Your task to perform on an android device: toggle javascript in the chrome app Image 0: 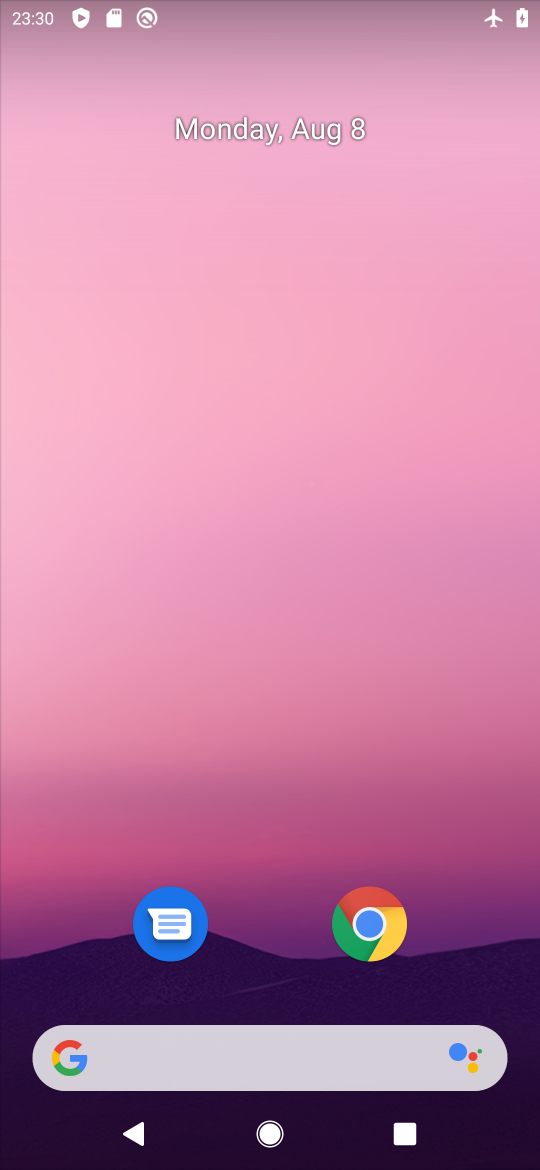
Step 0: click (379, 911)
Your task to perform on an android device: toggle javascript in the chrome app Image 1: 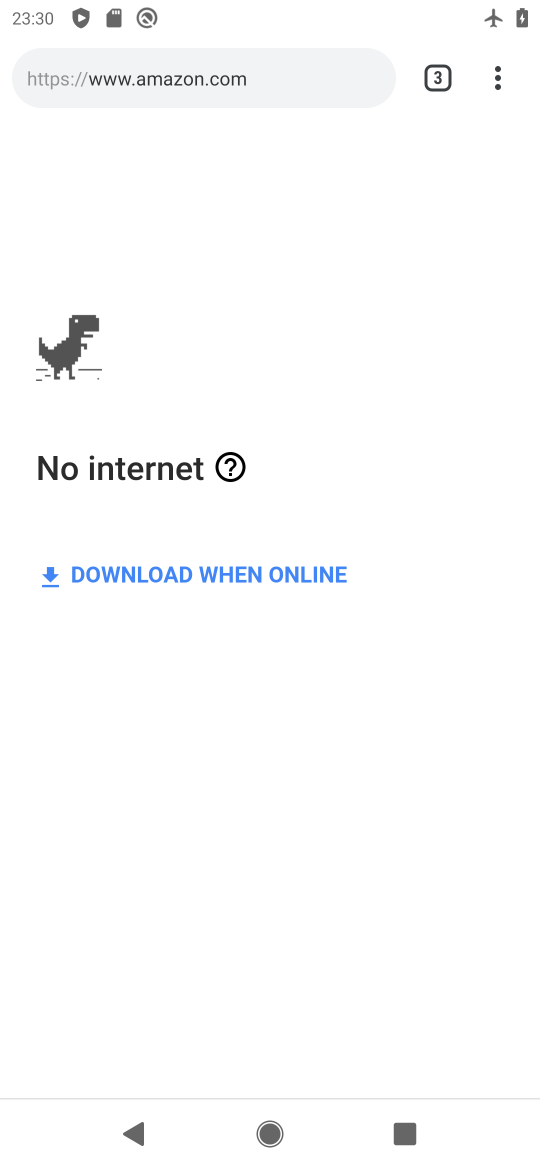
Step 1: click (496, 66)
Your task to perform on an android device: toggle javascript in the chrome app Image 2: 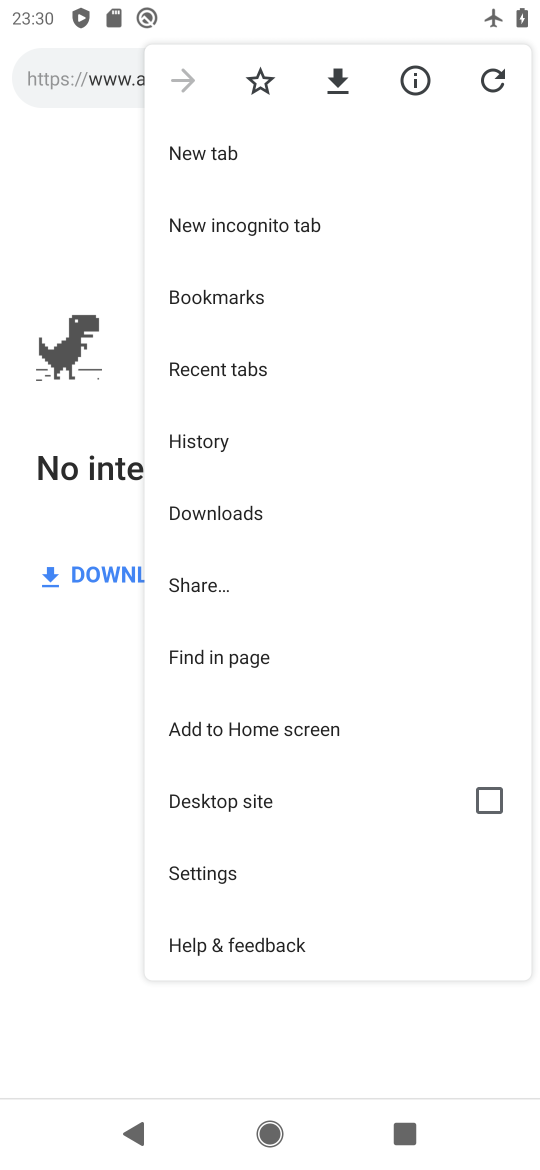
Step 2: click (218, 860)
Your task to perform on an android device: toggle javascript in the chrome app Image 3: 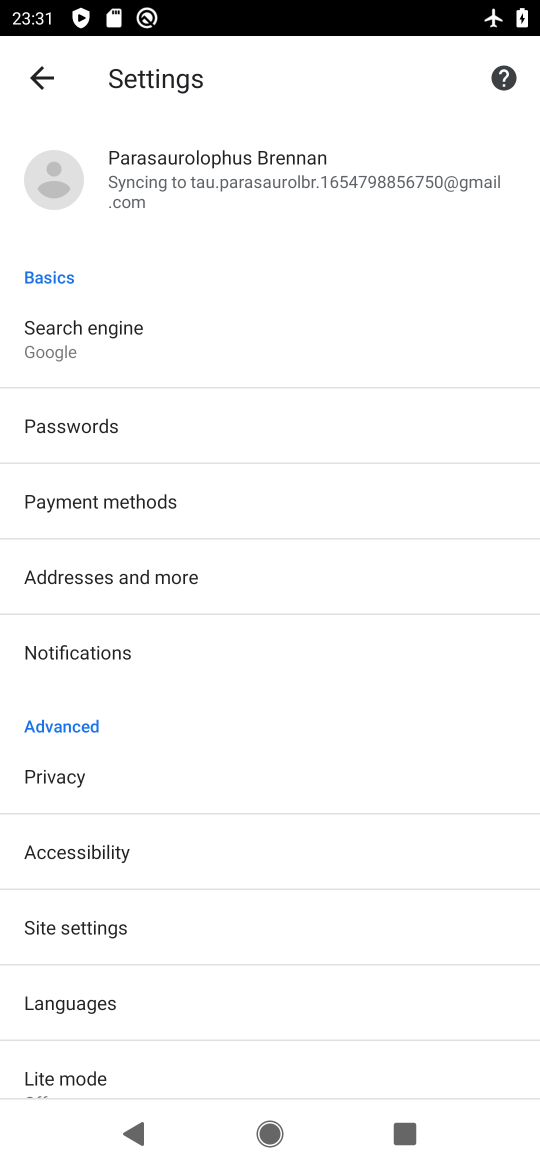
Step 3: click (69, 925)
Your task to perform on an android device: toggle javascript in the chrome app Image 4: 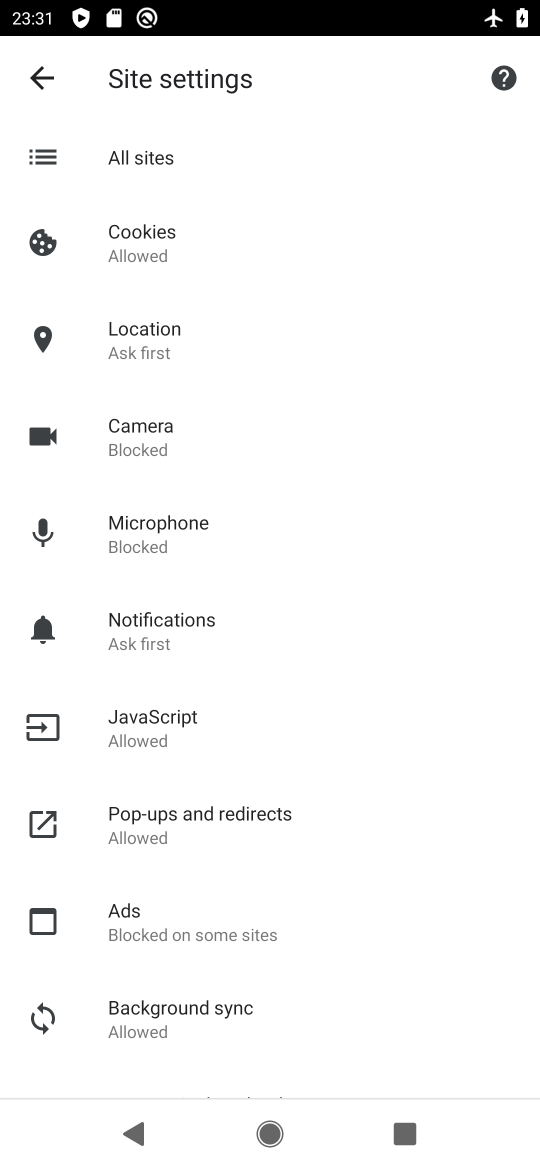
Step 4: click (180, 745)
Your task to perform on an android device: toggle javascript in the chrome app Image 5: 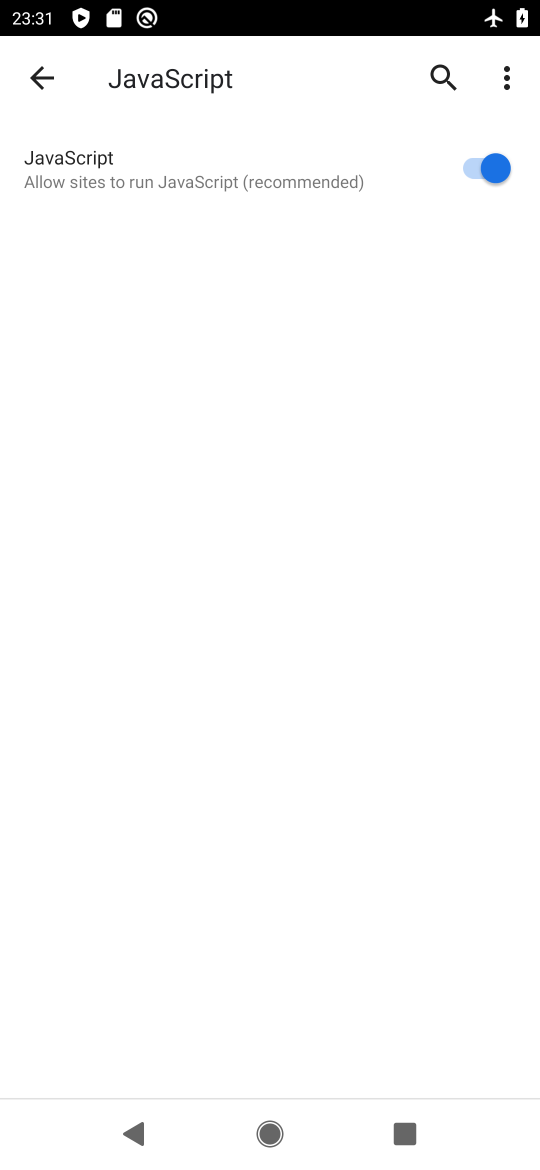
Step 5: click (481, 174)
Your task to perform on an android device: toggle javascript in the chrome app Image 6: 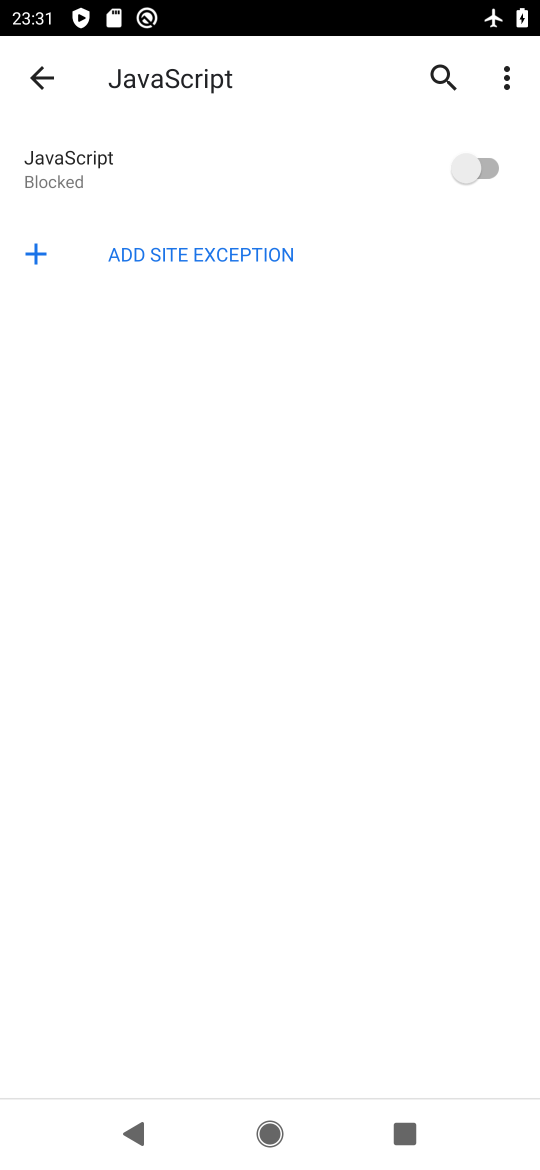
Step 6: task complete